Your task to perform on an android device: Search for a nice rug on Crate & Barrel Image 0: 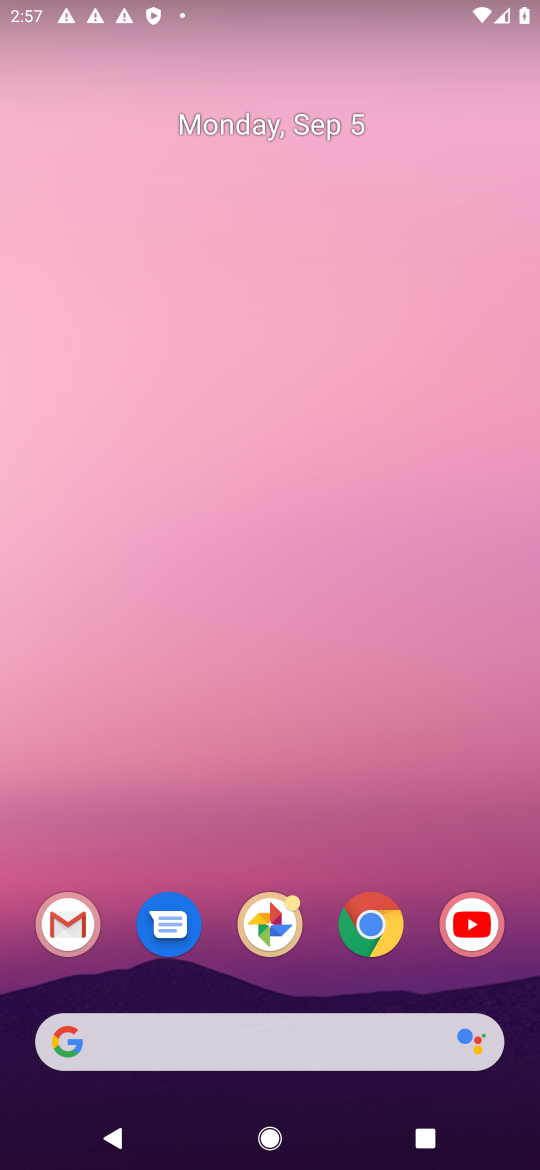
Step 0: drag from (186, 578) to (188, 526)
Your task to perform on an android device: Search for a nice rug on Crate & Barrel Image 1: 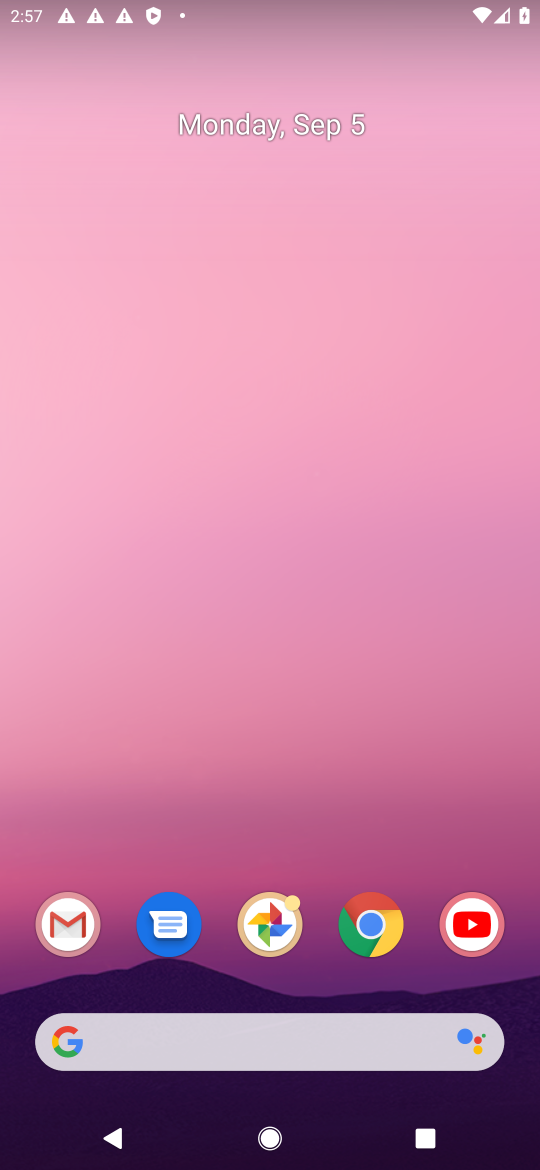
Step 1: drag from (207, 1005) to (178, 380)
Your task to perform on an android device: Search for a nice rug on Crate & Barrel Image 2: 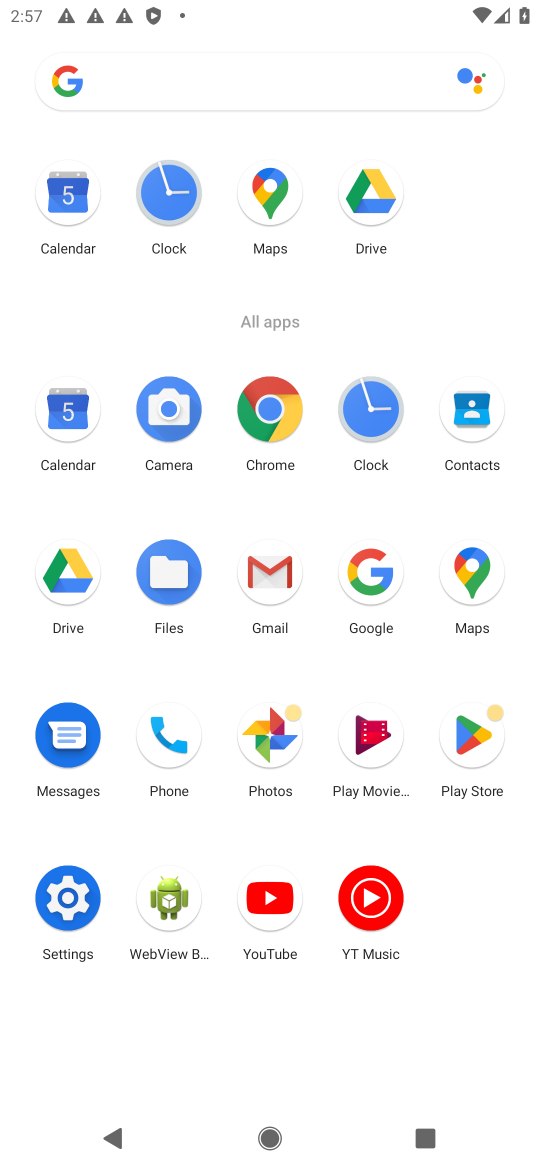
Step 2: click (290, 448)
Your task to perform on an android device: Search for a nice rug on Crate & Barrel Image 3: 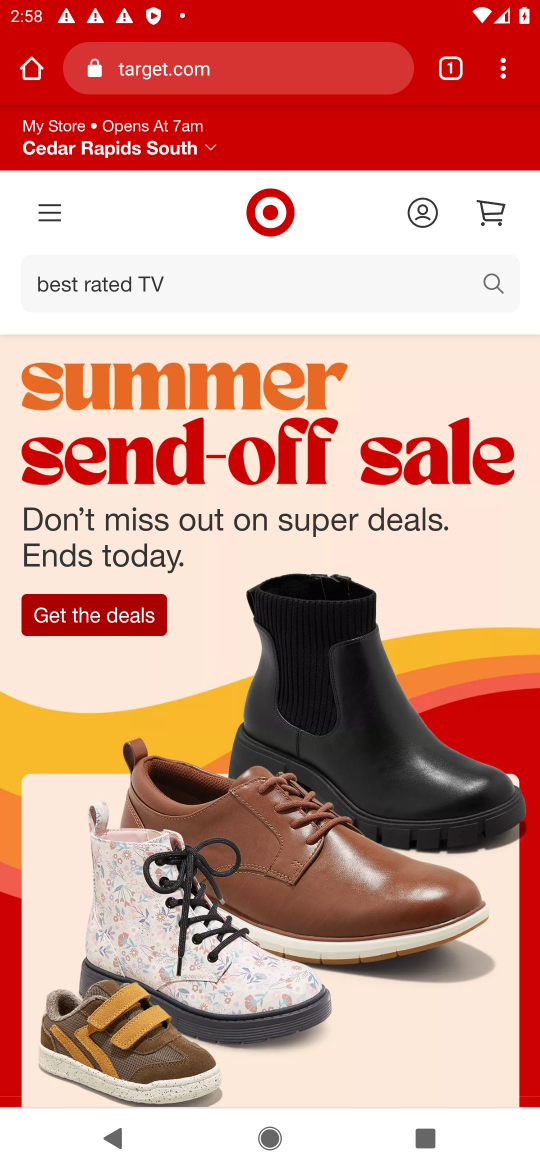
Step 3: click (236, 78)
Your task to perform on an android device: Search for a nice rug on Crate & Barrel Image 4: 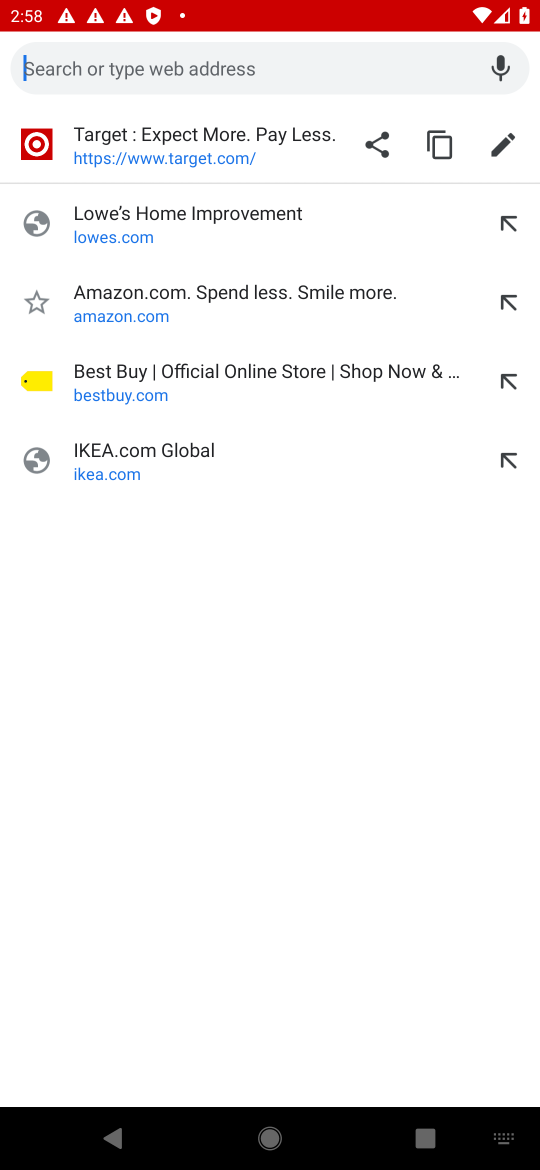
Step 4: type "crates and barrel"
Your task to perform on an android device: Search for a nice rug on Crate & Barrel Image 5: 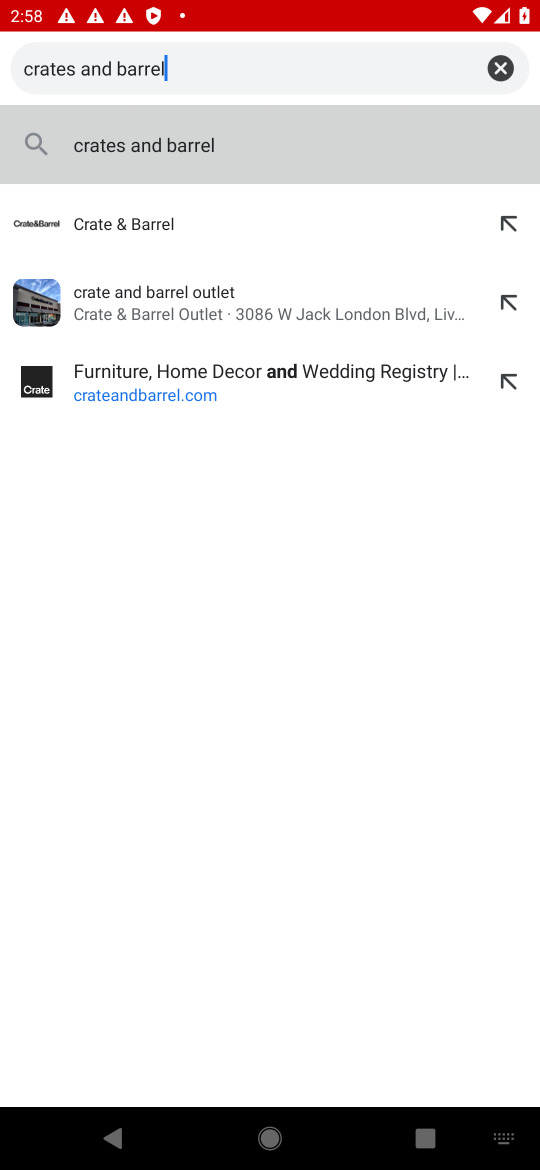
Step 5: click (214, 216)
Your task to perform on an android device: Search for a nice rug on Crate & Barrel Image 6: 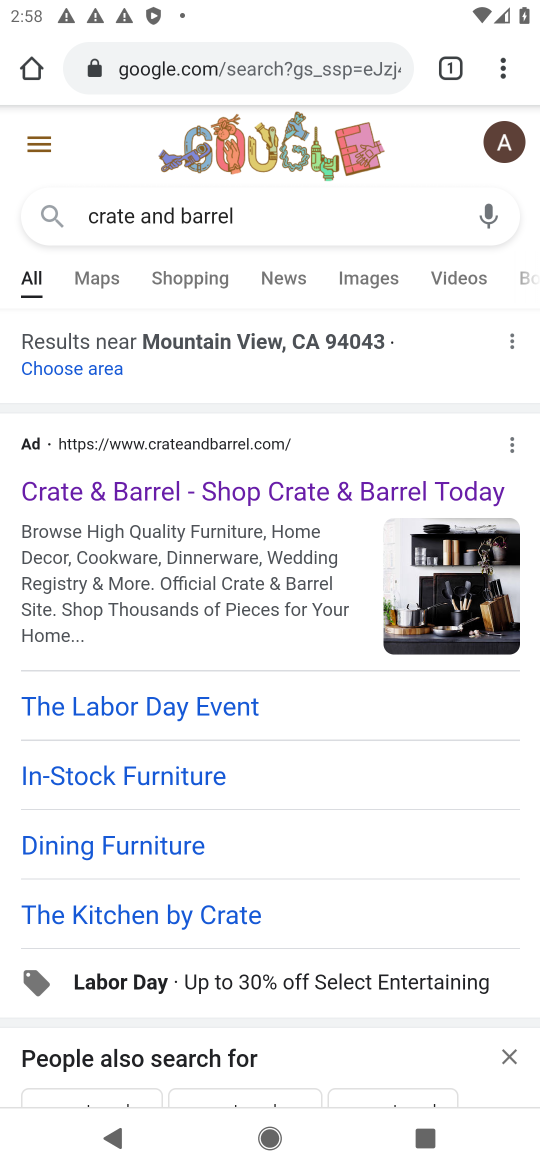
Step 6: drag from (118, 955) to (107, 330)
Your task to perform on an android device: Search for a nice rug on Crate & Barrel Image 7: 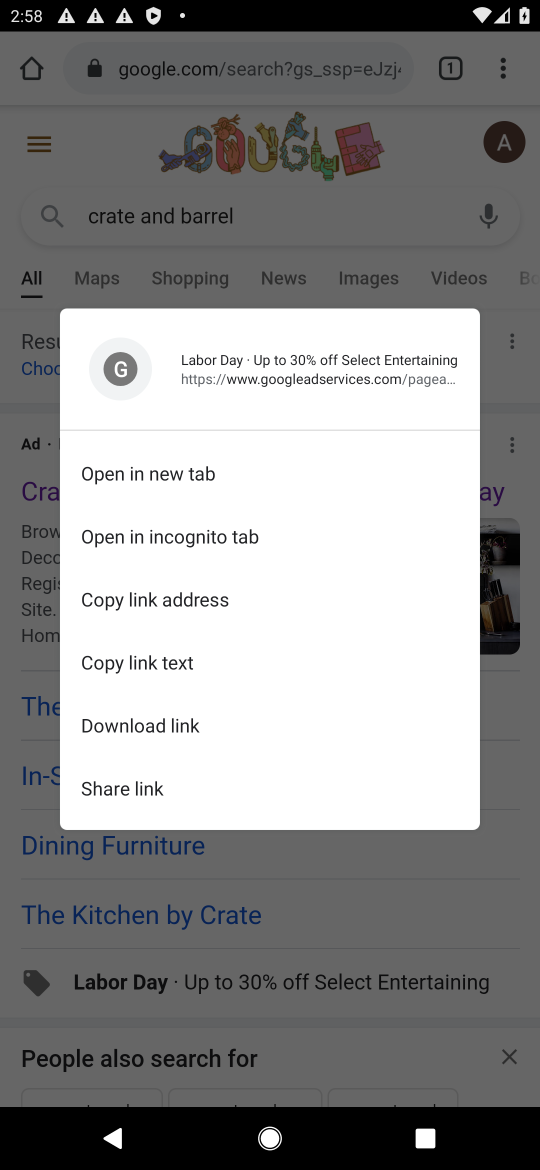
Step 7: click (110, 191)
Your task to perform on an android device: Search for a nice rug on Crate & Barrel Image 8: 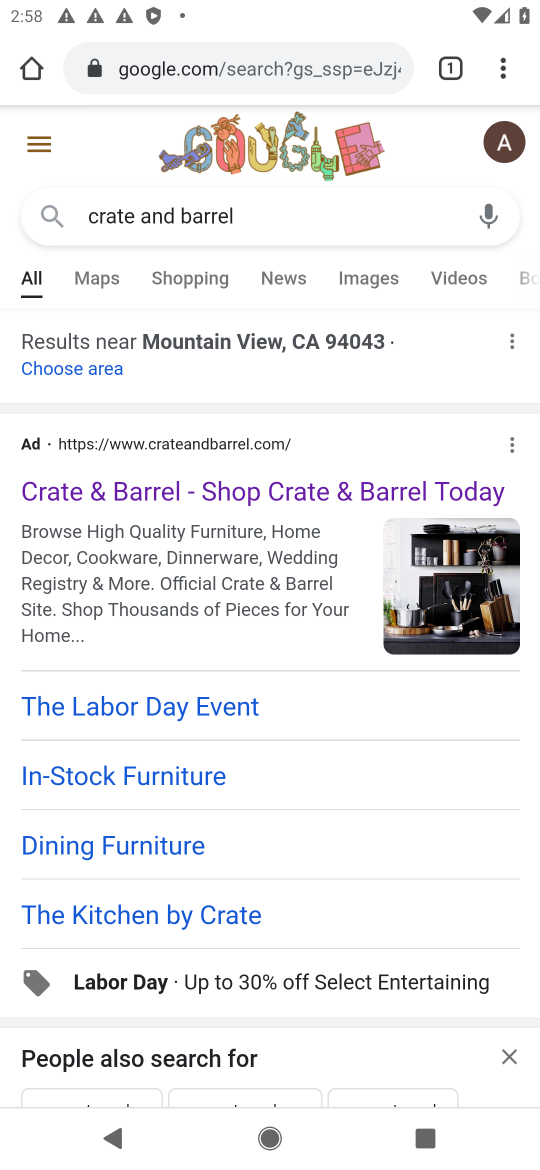
Step 8: drag from (173, 355) to (140, 64)
Your task to perform on an android device: Search for a nice rug on Crate & Barrel Image 9: 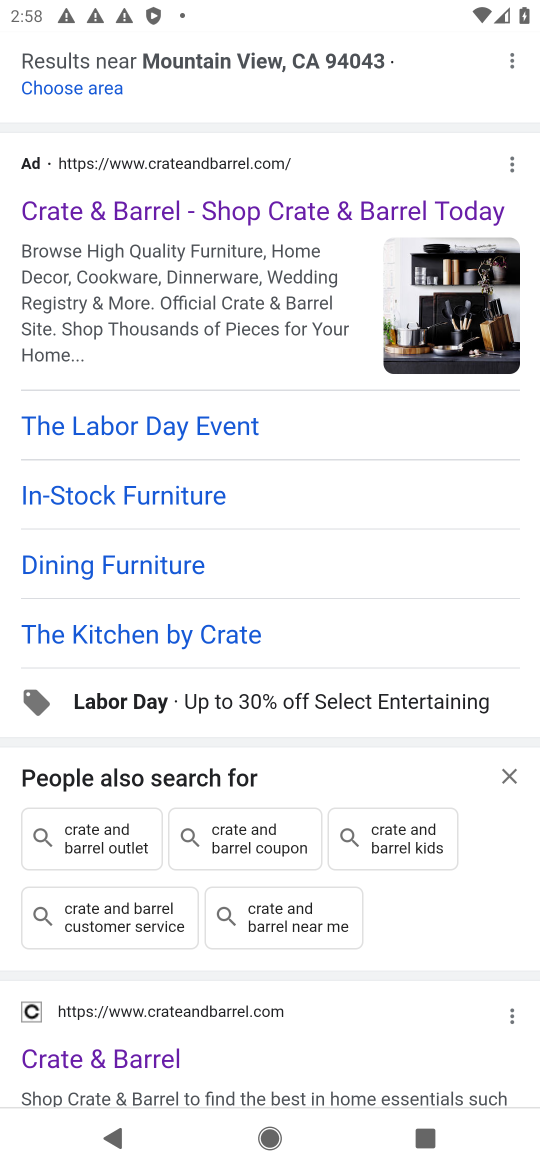
Step 9: drag from (155, 725) to (173, 389)
Your task to perform on an android device: Search for a nice rug on Crate & Barrel Image 10: 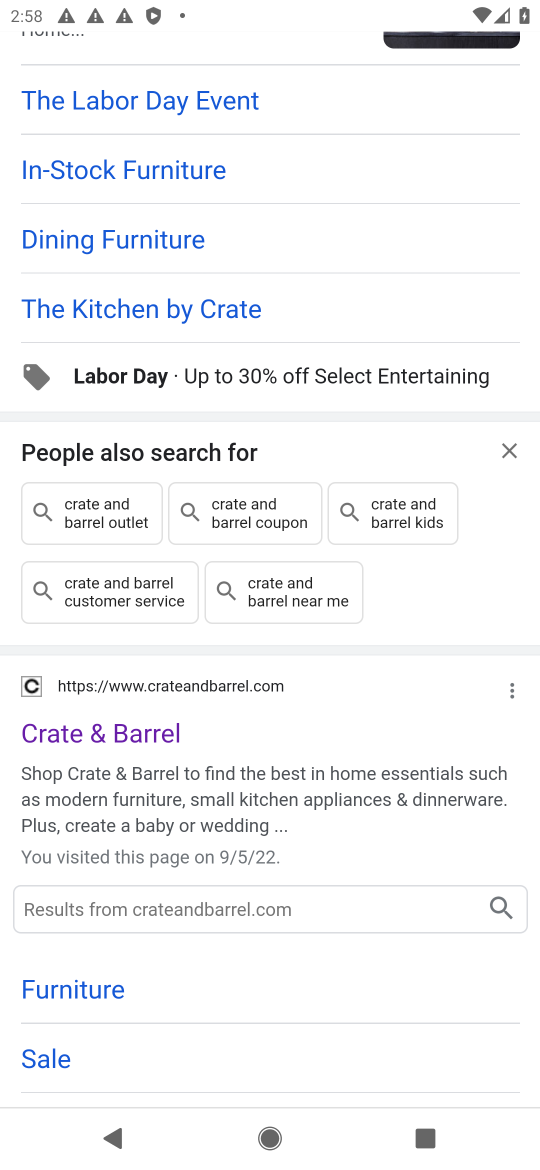
Step 10: click (110, 747)
Your task to perform on an android device: Search for a nice rug on Crate & Barrel Image 11: 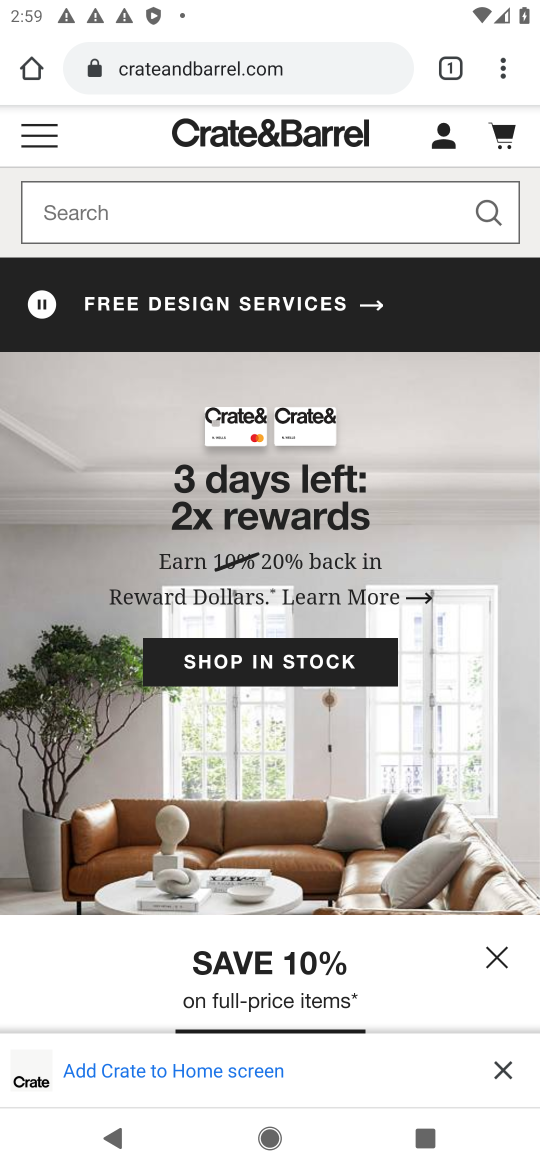
Step 11: click (162, 200)
Your task to perform on an android device: Search for a nice rug on Crate & Barrel Image 12: 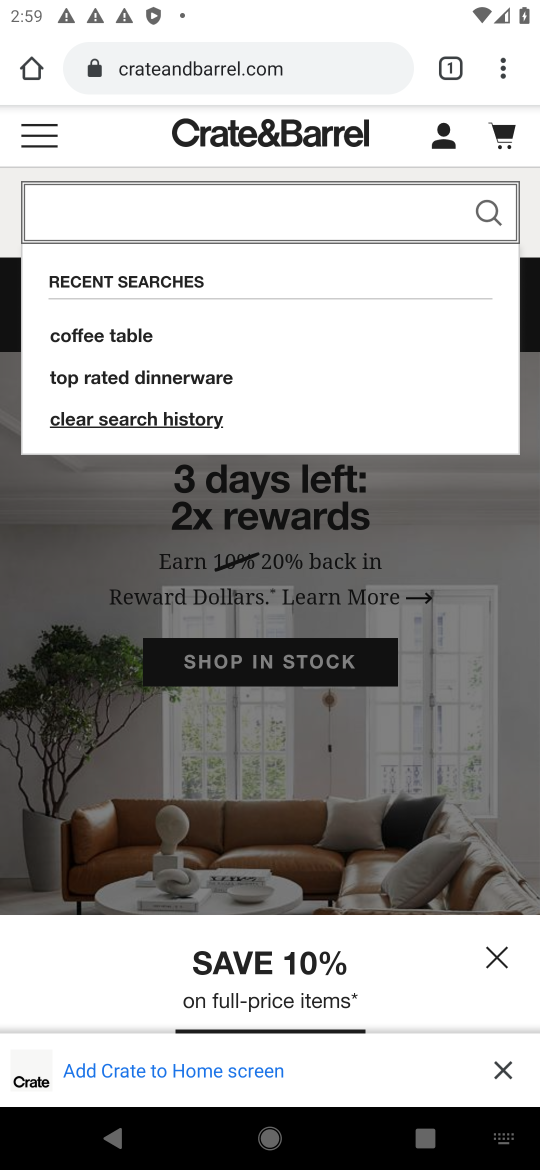
Step 12: type "nice rug"
Your task to perform on an android device: Search for a nice rug on Crate & Barrel Image 13: 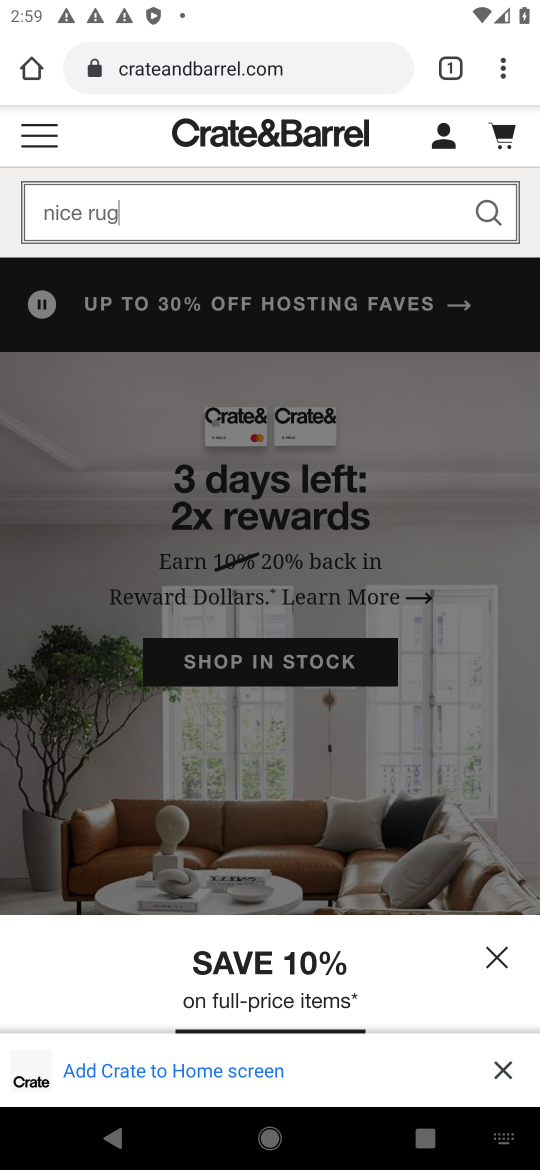
Step 13: click (486, 212)
Your task to perform on an android device: Search for a nice rug on Crate & Barrel Image 14: 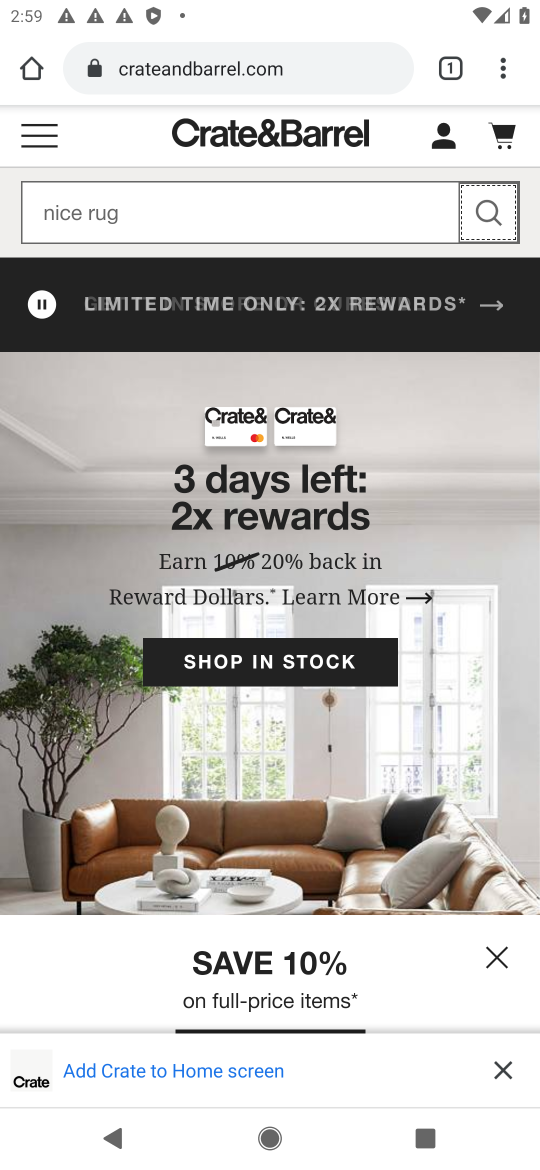
Step 14: click (498, 230)
Your task to perform on an android device: Search for a nice rug on Crate & Barrel Image 15: 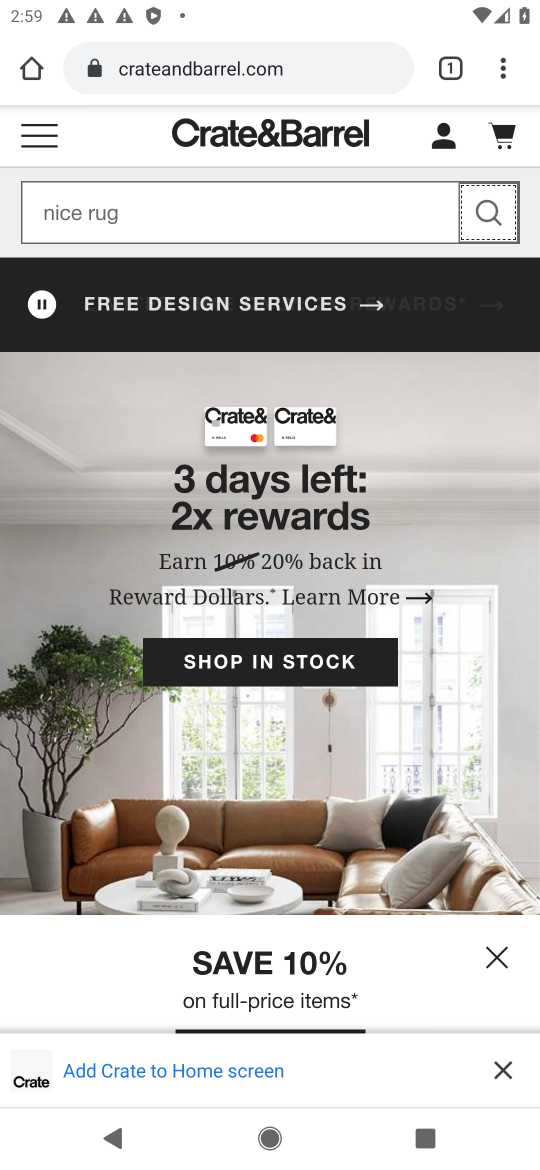
Step 15: click (488, 218)
Your task to perform on an android device: Search for a nice rug on Crate & Barrel Image 16: 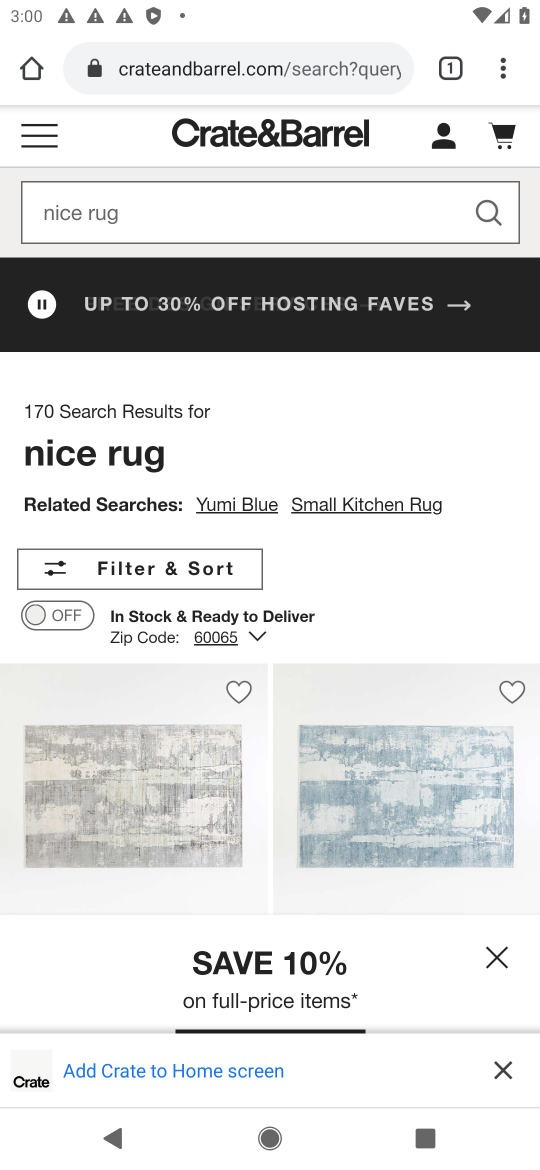
Step 16: task complete